Your task to perform on an android device: add a contact in the contacts app Image 0: 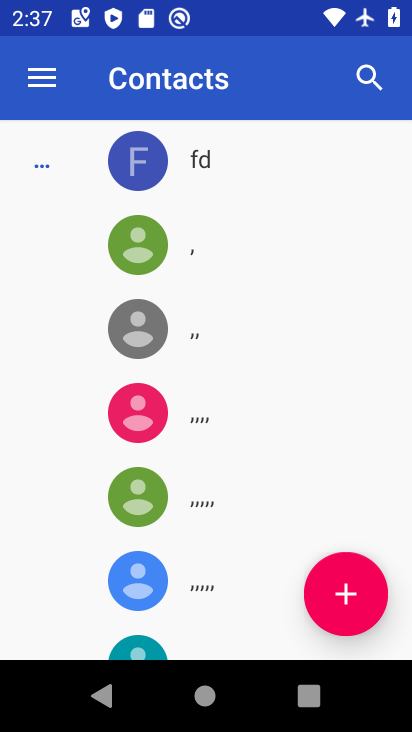
Step 0: press home button
Your task to perform on an android device: add a contact in the contacts app Image 1: 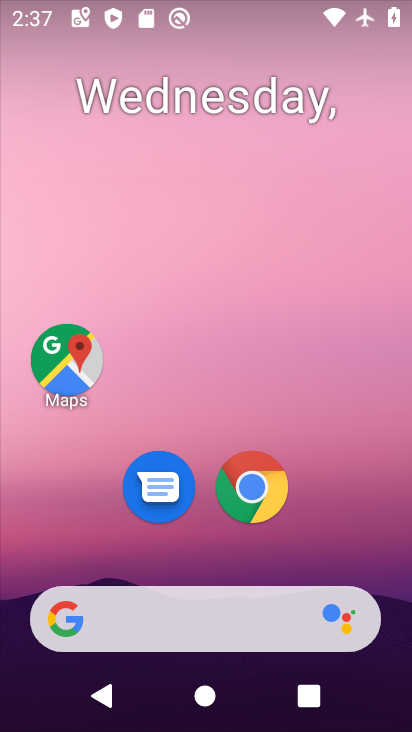
Step 1: drag from (386, 455) to (411, 205)
Your task to perform on an android device: add a contact in the contacts app Image 2: 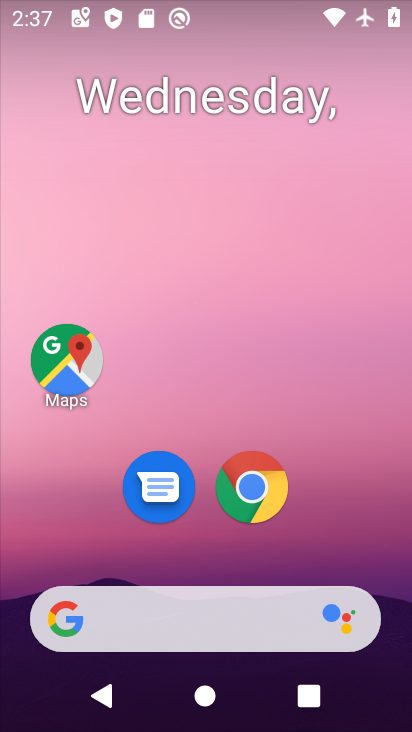
Step 2: drag from (357, 537) to (406, 58)
Your task to perform on an android device: add a contact in the contacts app Image 3: 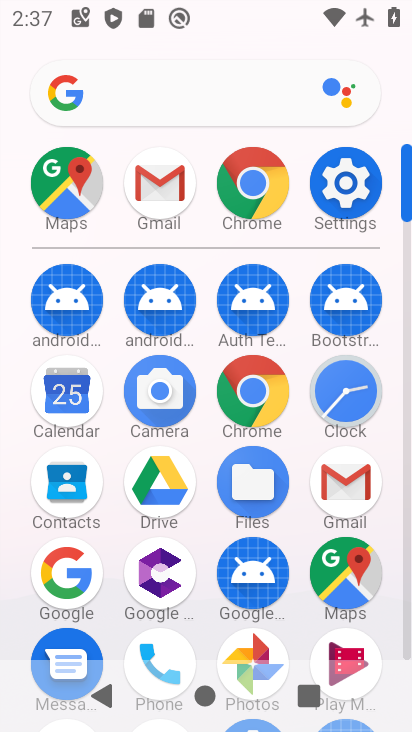
Step 3: drag from (181, 584) to (194, 247)
Your task to perform on an android device: add a contact in the contacts app Image 4: 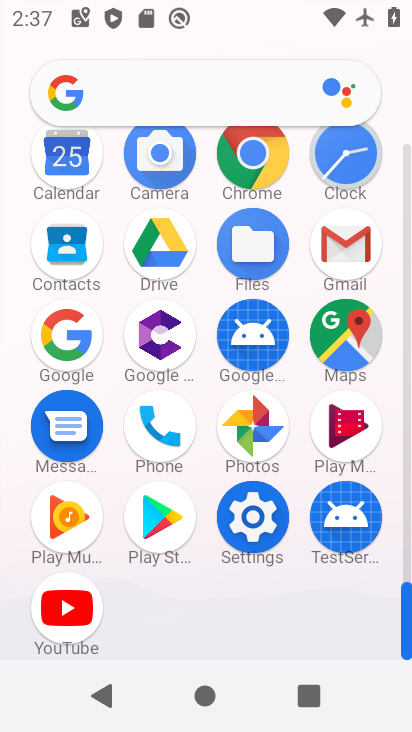
Step 4: click (167, 451)
Your task to perform on an android device: add a contact in the contacts app Image 5: 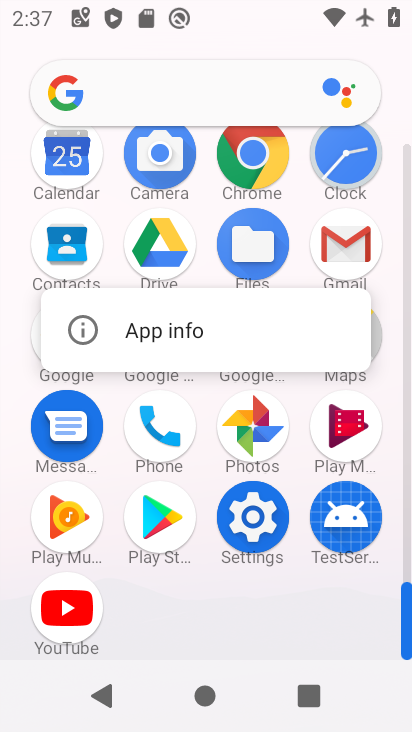
Step 5: click (168, 450)
Your task to perform on an android device: add a contact in the contacts app Image 6: 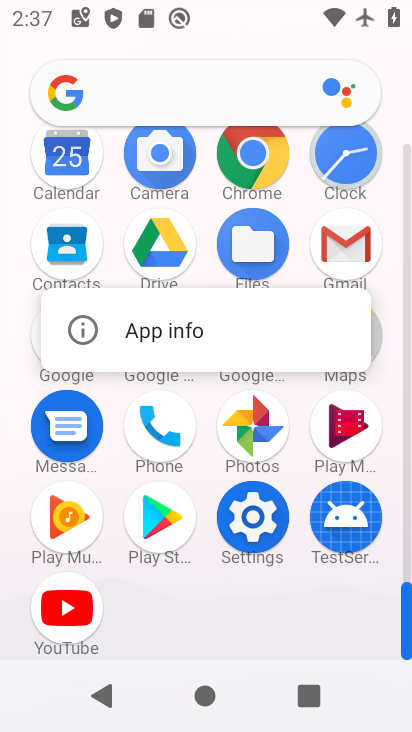
Step 6: click (168, 450)
Your task to perform on an android device: add a contact in the contacts app Image 7: 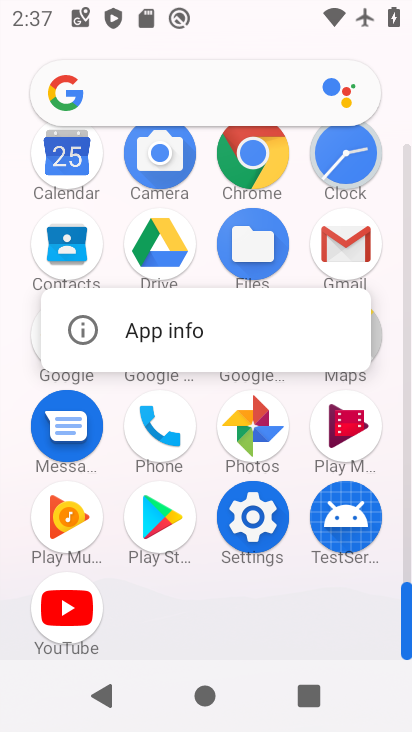
Step 7: click (168, 450)
Your task to perform on an android device: add a contact in the contacts app Image 8: 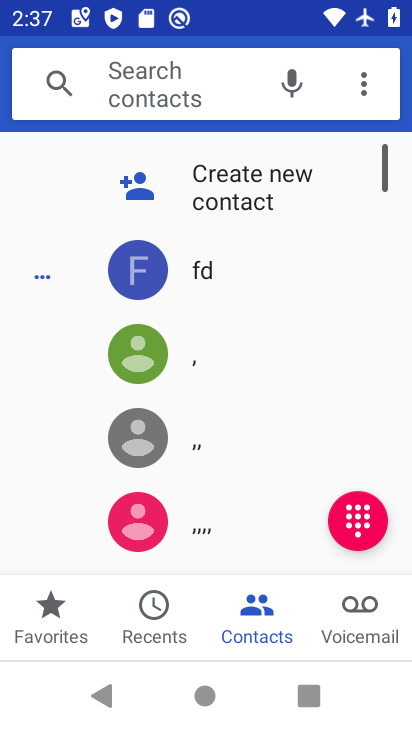
Step 8: click (219, 182)
Your task to perform on an android device: add a contact in the contacts app Image 9: 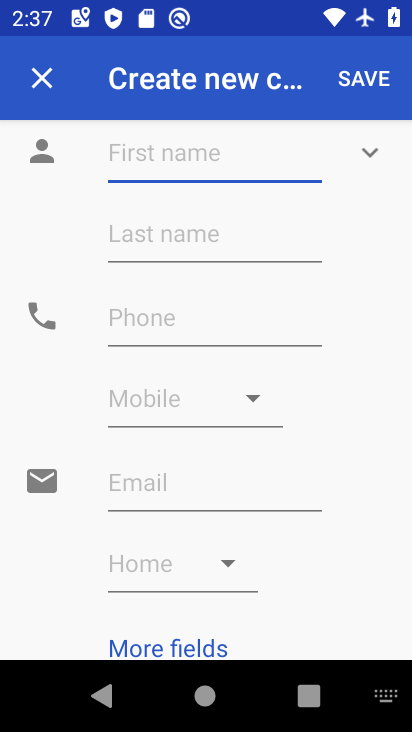
Step 9: type "yuuu"
Your task to perform on an android device: add a contact in the contacts app Image 10: 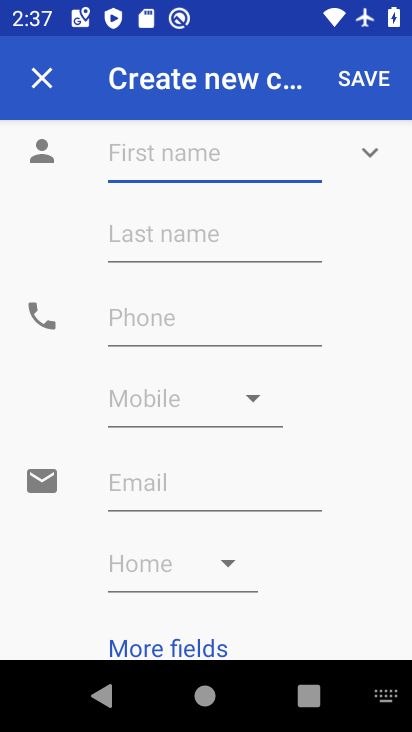
Step 10: click (144, 336)
Your task to perform on an android device: add a contact in the contacts app Image 11: 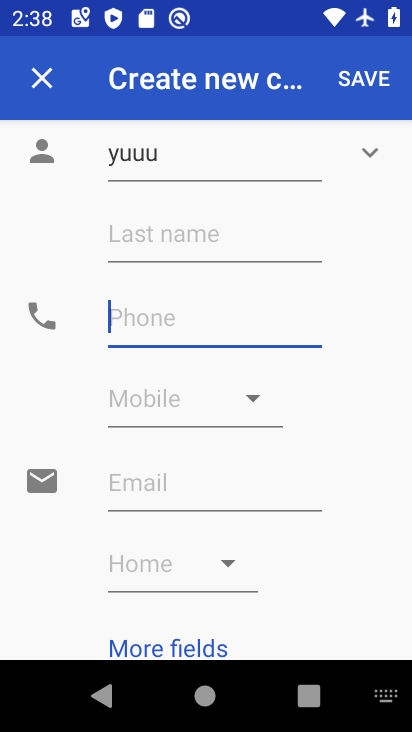
Step 11: type "098766666666"
Your task to perform on an android device: add a contact in the contacts app Image 12: 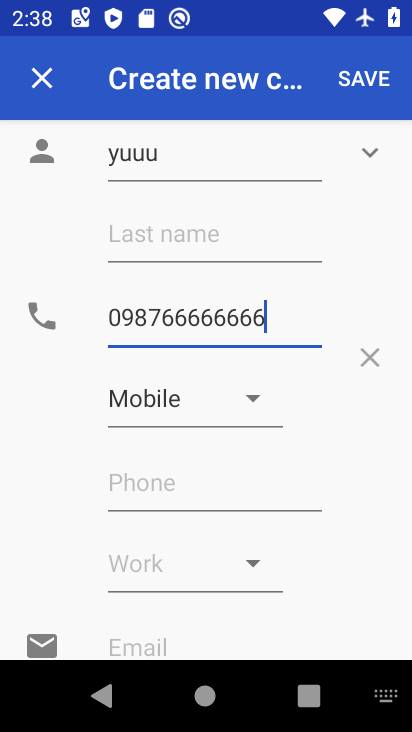
Step 12: click (343, 95)
Your task to perform on an android device: add a contact in the contacts app Image 13: 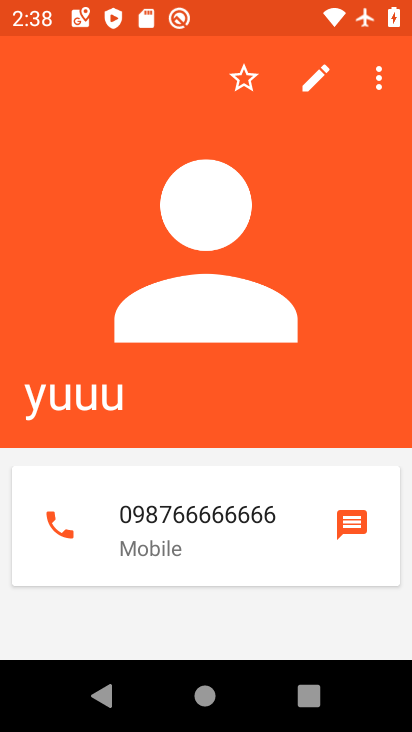
Step 13: task complete